Your task to perform on an android device: open app "Google Find My Device" Image 0: 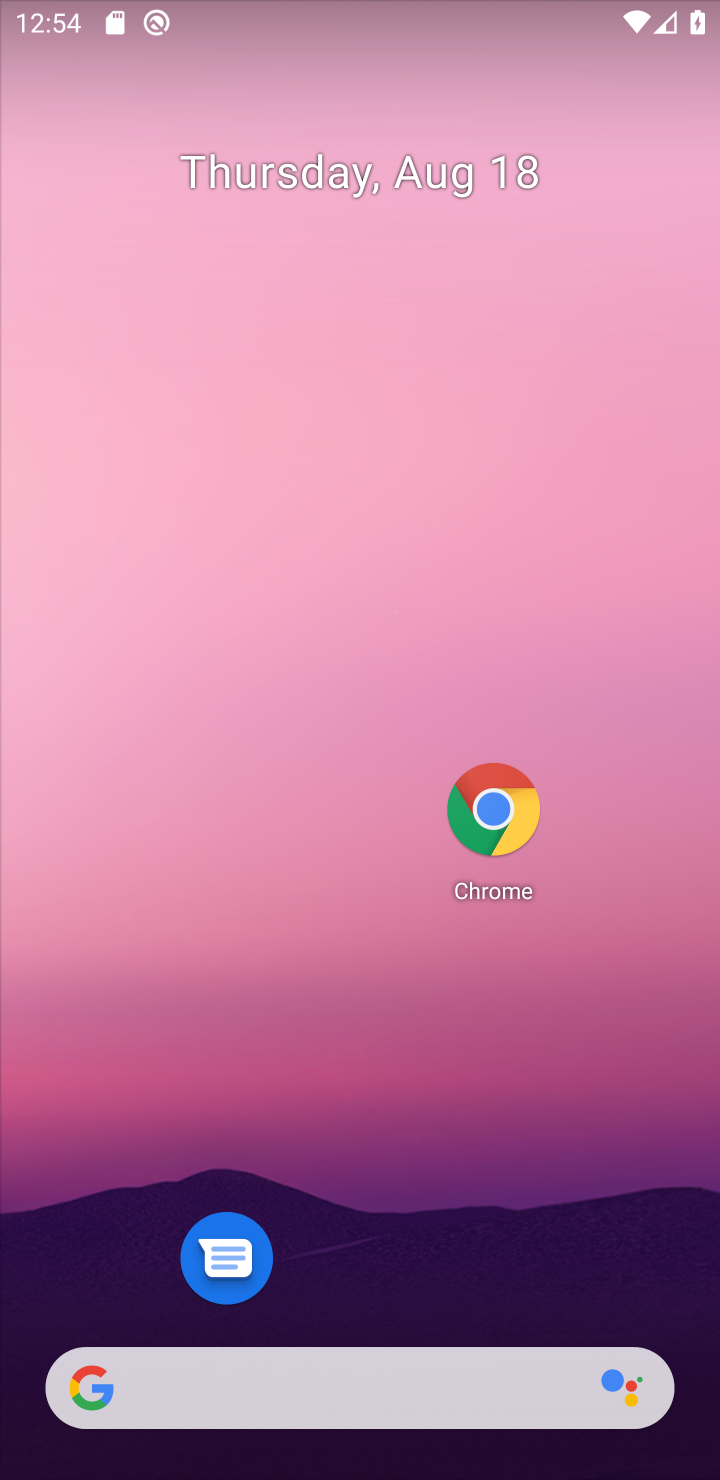
Step 0: drag from (314, 1263) to (356, 252)
Your task to perform on an android device: open app "Google Find My Device" Image 1: 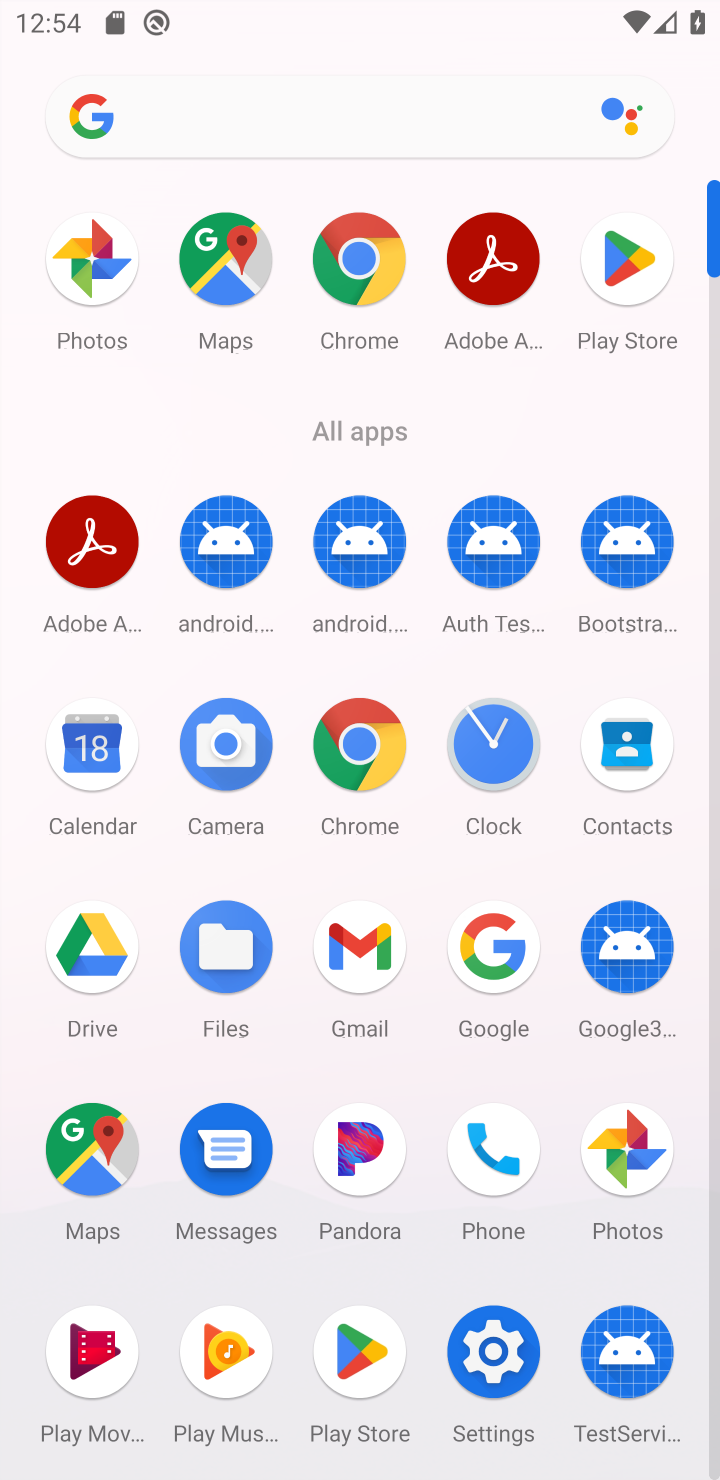
Step 1: click (615, 242)
Your task to perform on an android device: open app "Google Find My Device" Image 2: 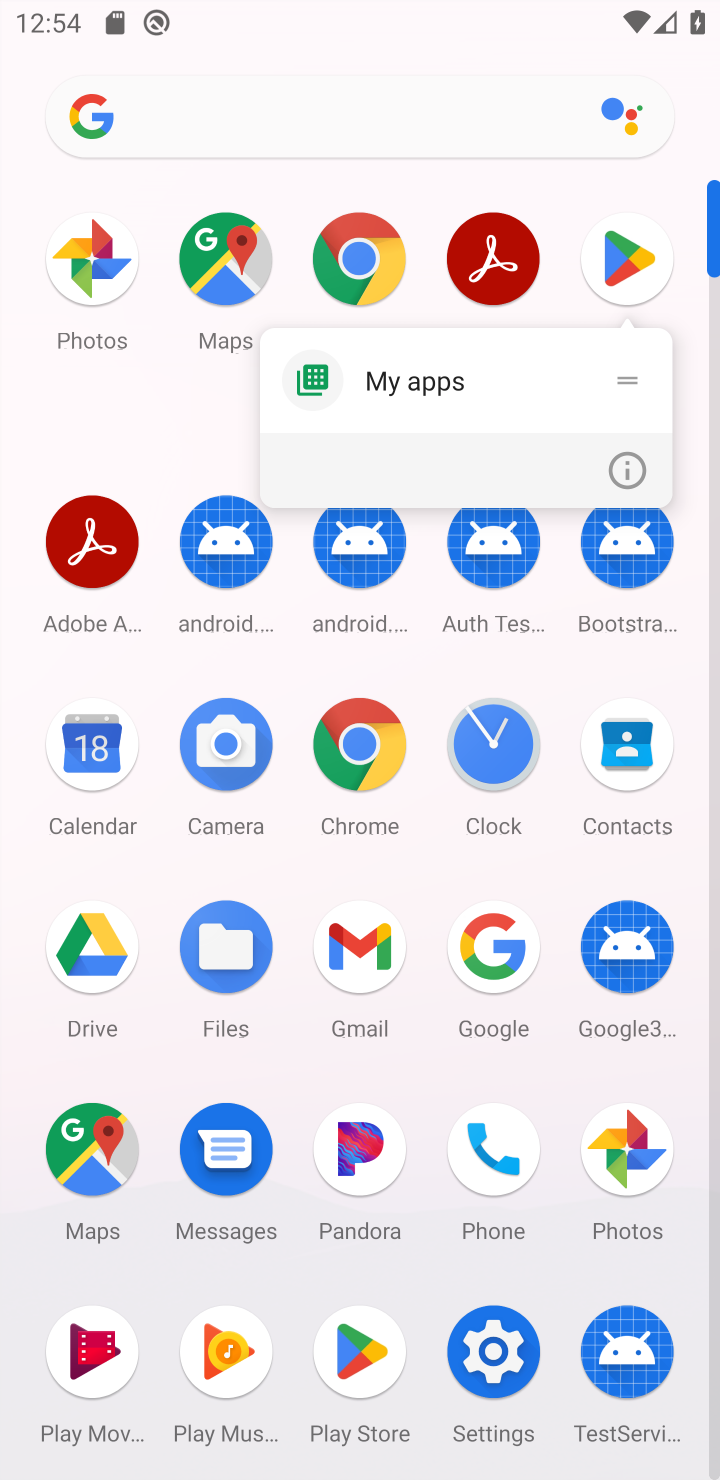
Step 2: click (615, 242)
Your task to perform on an android device: open app "Google Find My Device" Image 3: 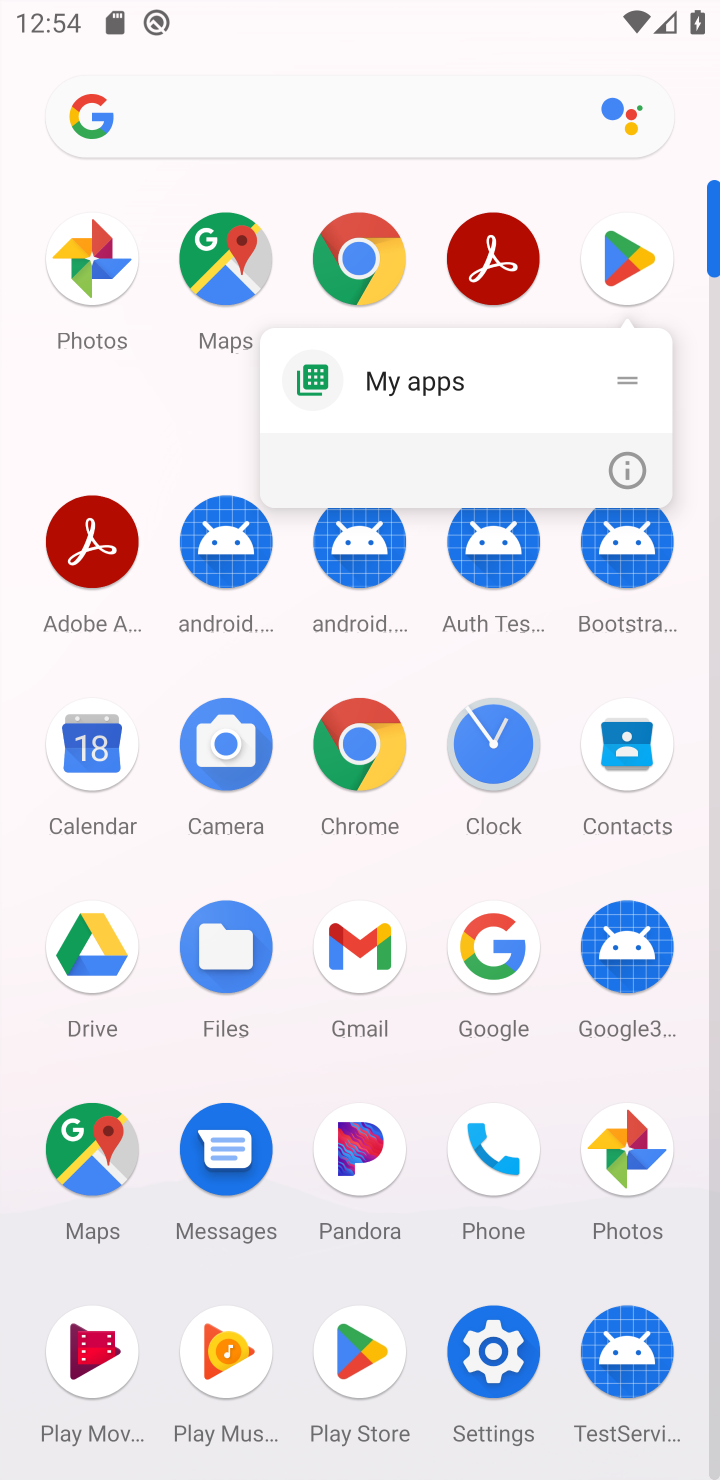
Step 3: click (615, 271)
Your task to perform on an android device: open app "Google Find My Device" Image 4: 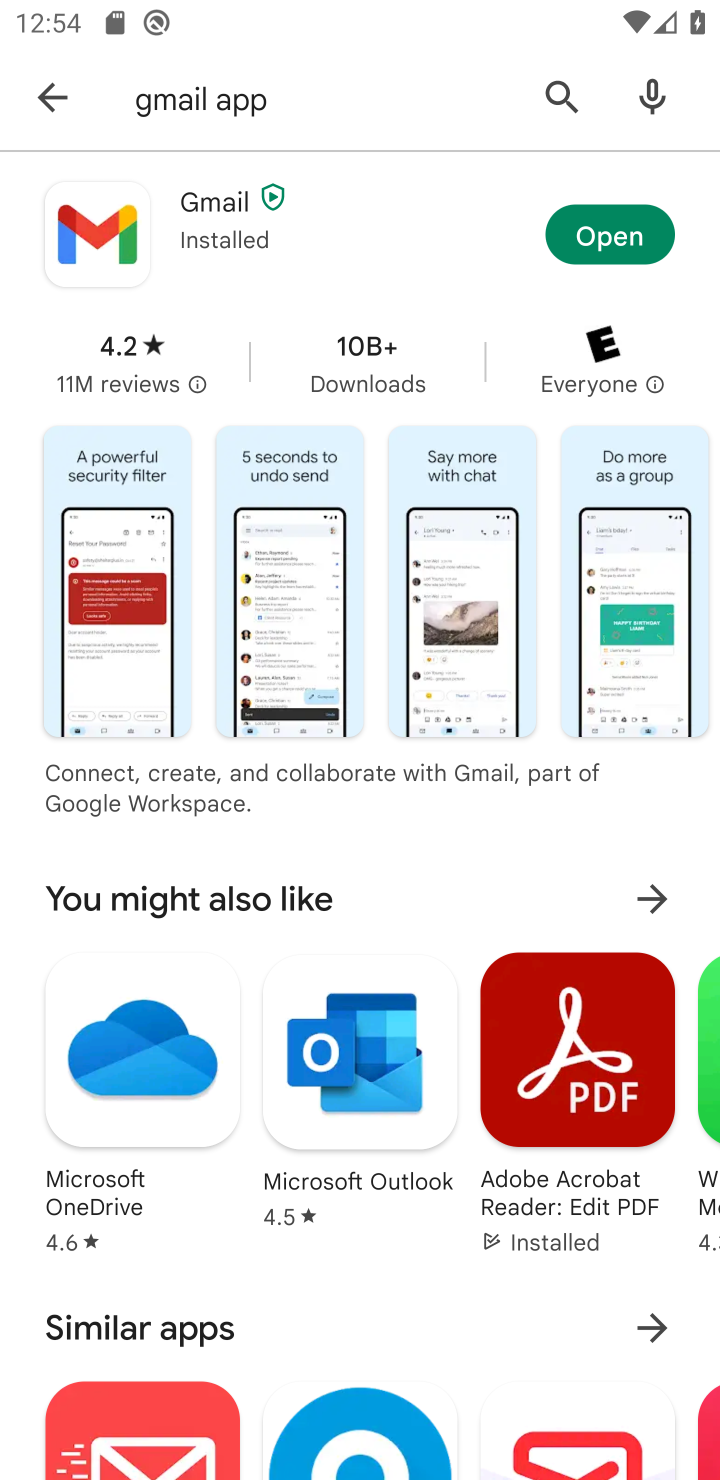
Step 4: click (40, 102)
Your task to perform on an android device: open app "Google Find My Device" Image 5: 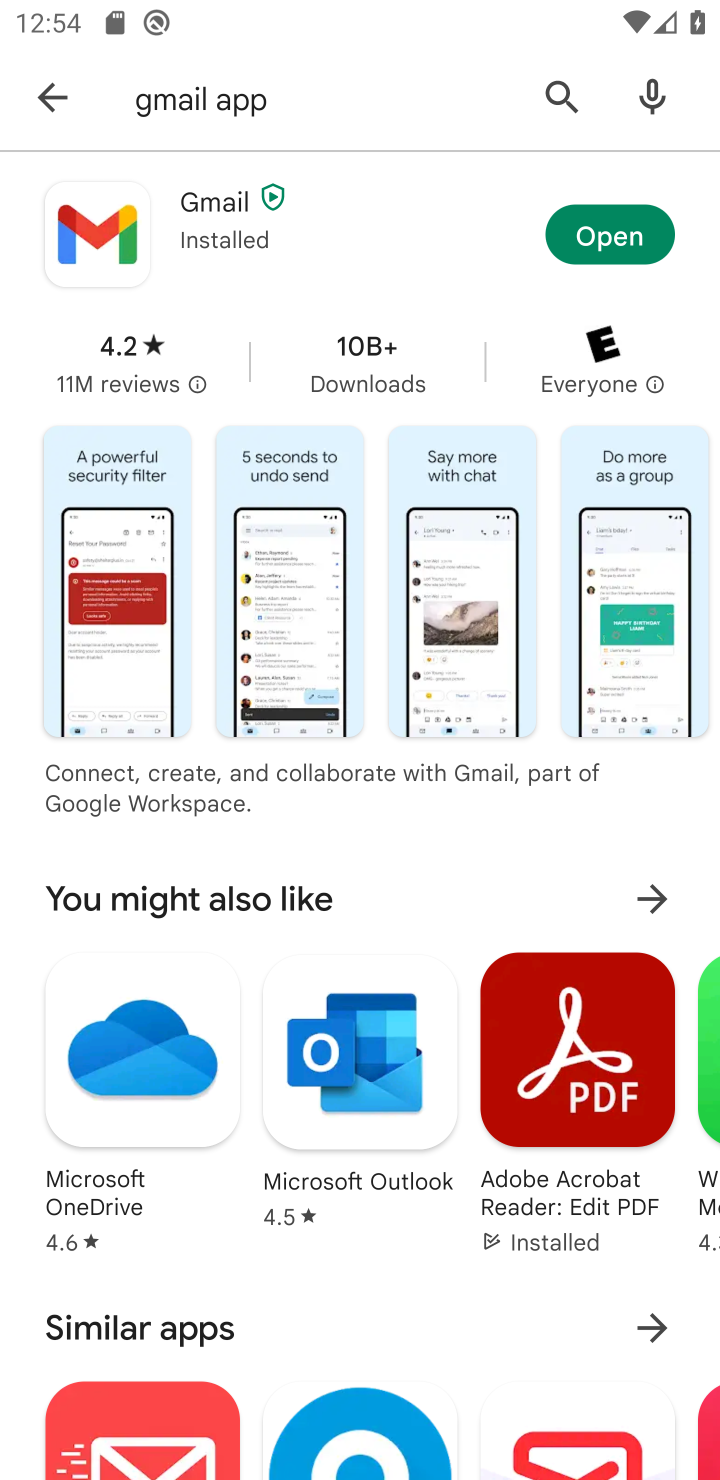
Step 5: click (54, 102)
Your task to perform on an android device: open app "Google Find My Device" Image 6: 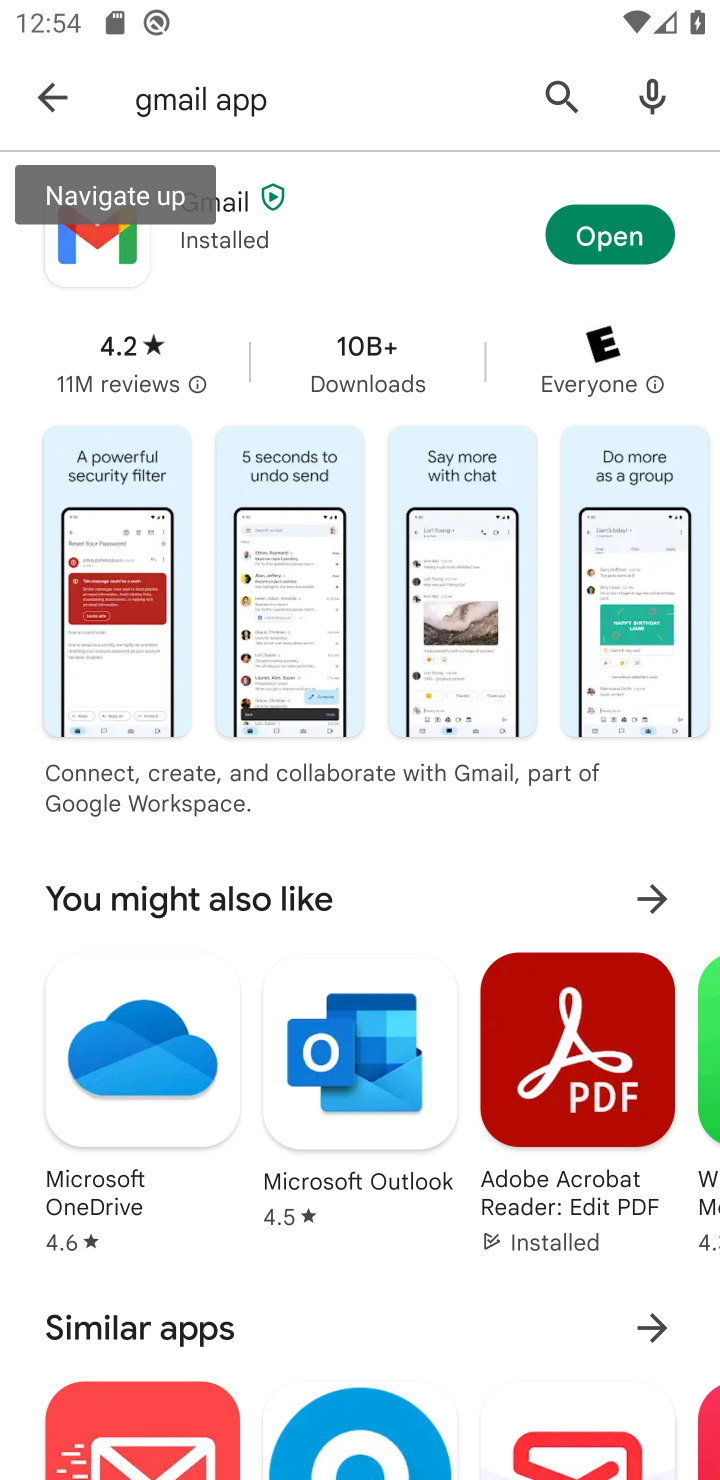
Step 6: click (58, 99)
Your task to perform on an android device: open app "Google Find My Device" Image 7: 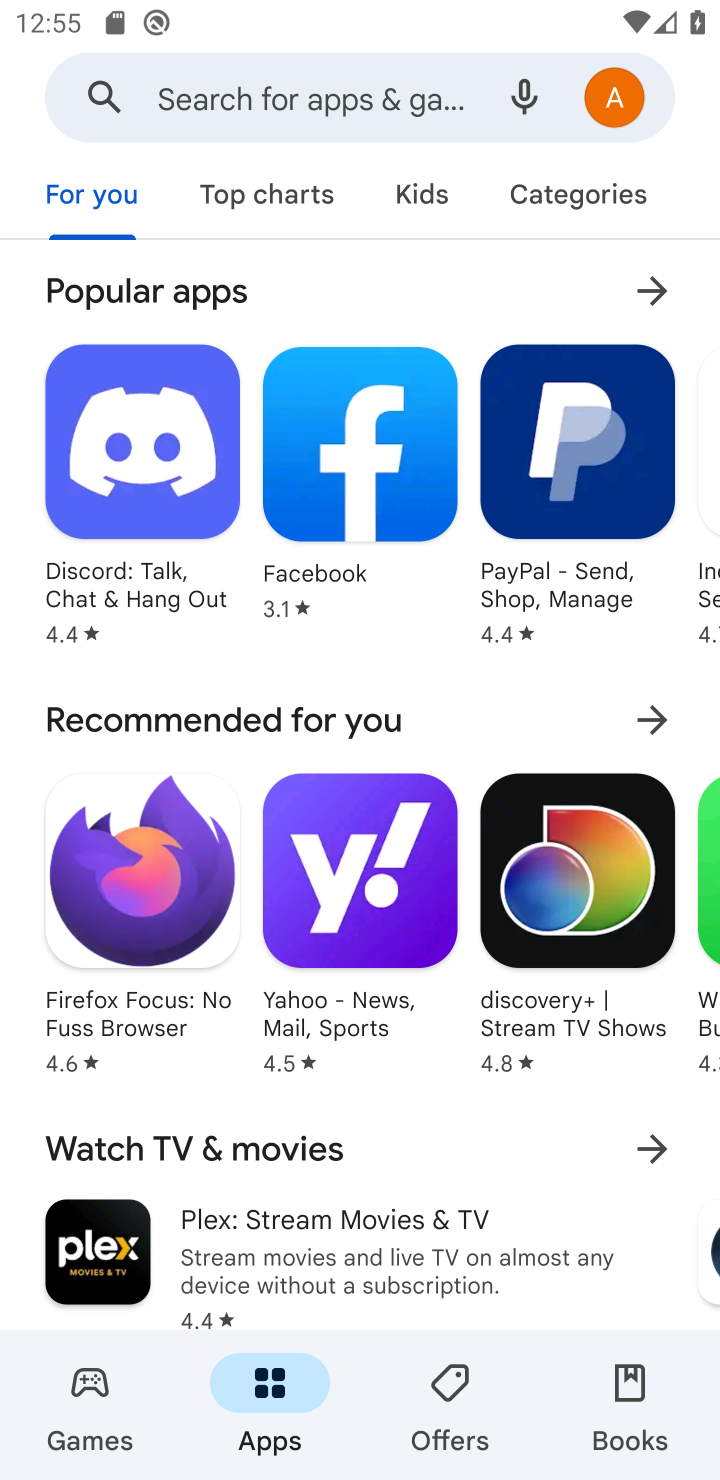
Step 7: click (215, 69)
Your task to perform on an android device: open app "Google Find My Device" Image 8: 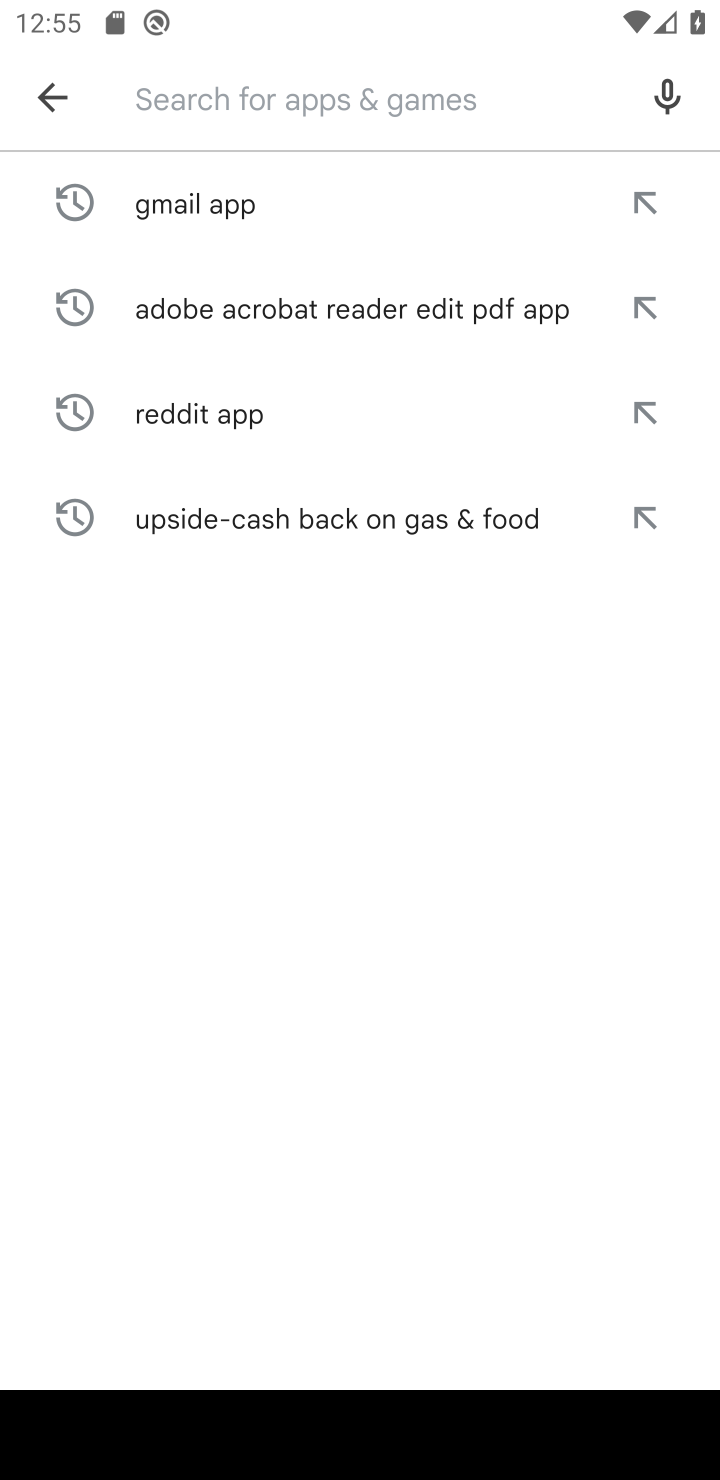
Step 8: type "Google Find My Device "
Your task to perform on an android device: open app "Google Find My Device" Image 9: 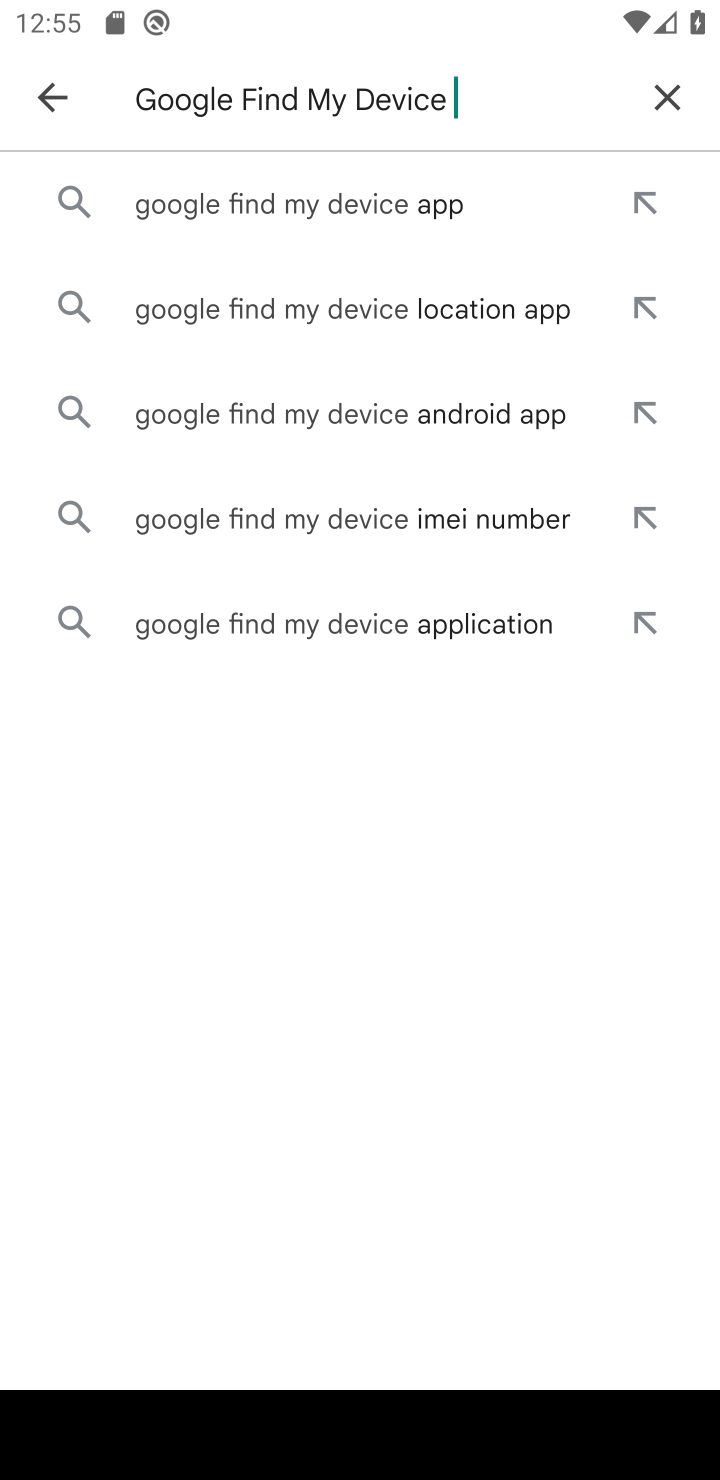
Step 9: click (292, 203)
Your task to perform on an android device: open app "Google Find My Device" Image 10: 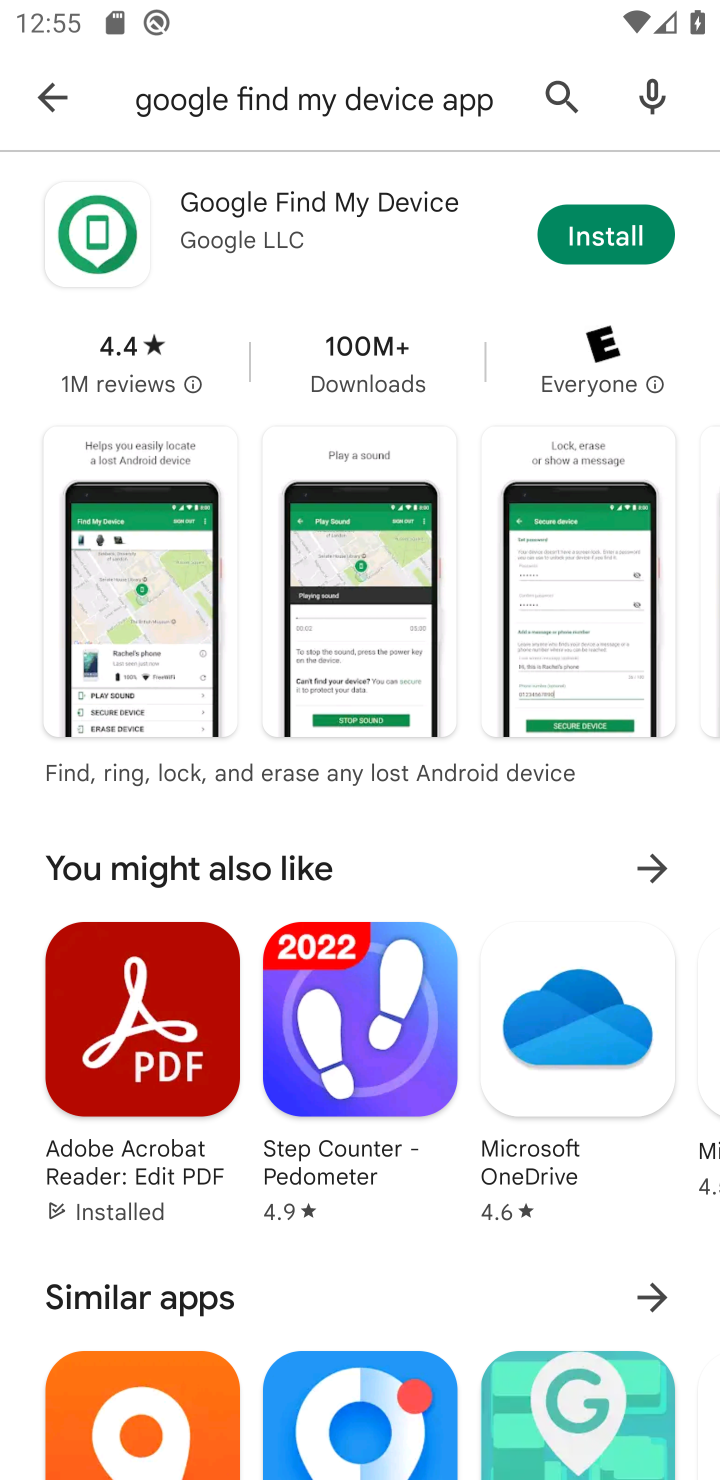
Step 10: click (614, 226)
Your task to perform on an android device: open app "Google Find My Device" Image 11: 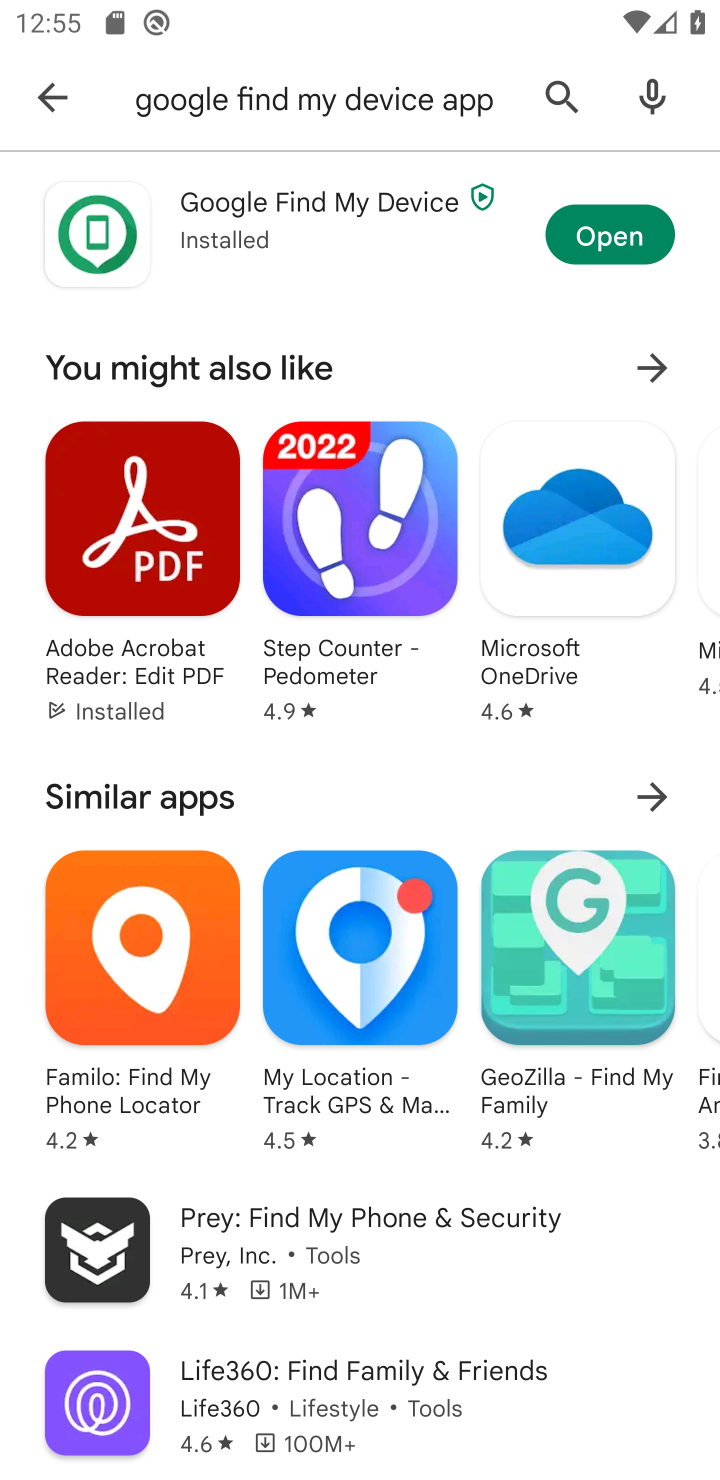
Step 11: click (636, 217)
Your task to perform on an android device: open app "Google Find My Device" Image 12: 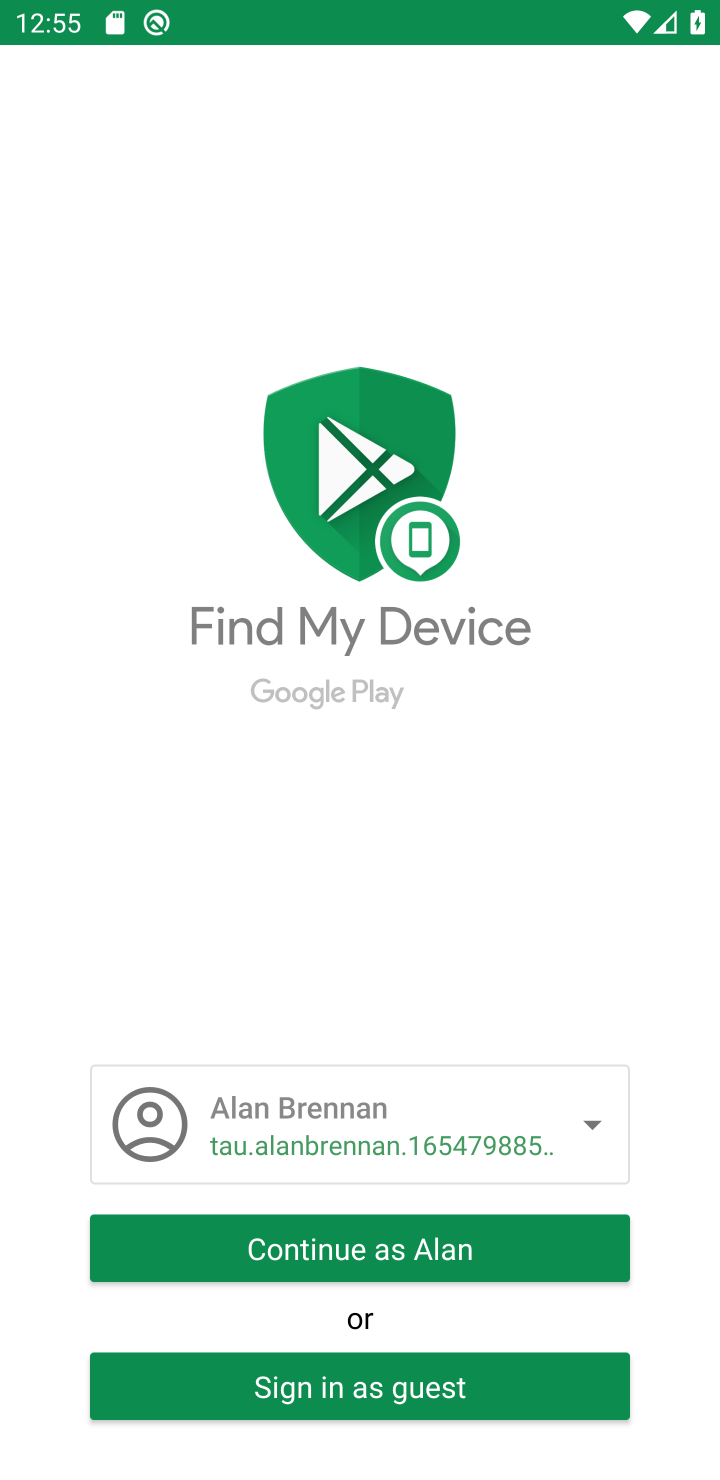
Step 12: task complete